Your task to perform on an android device: turn off notifications settings in the gmail app Image 0: 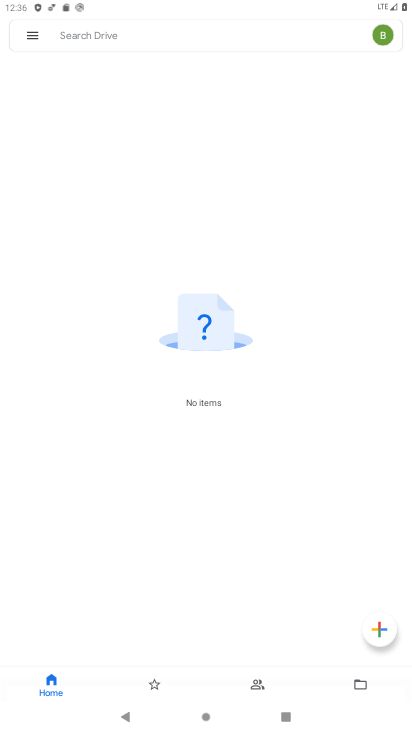
Step 0: press home button
Your task to perform on an android device: turn off notifications settings in the gmail app Image 1: 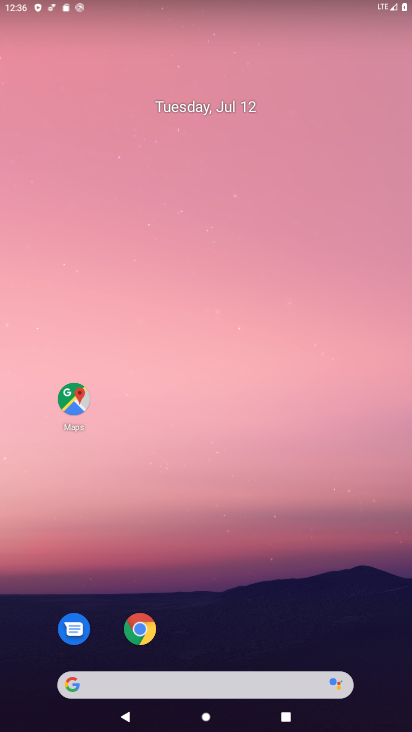
Step 1: drag from (262, 680) to (278, 59)
Your task to perform on an android device: turn off notifications settings in the gmail app Image 2: 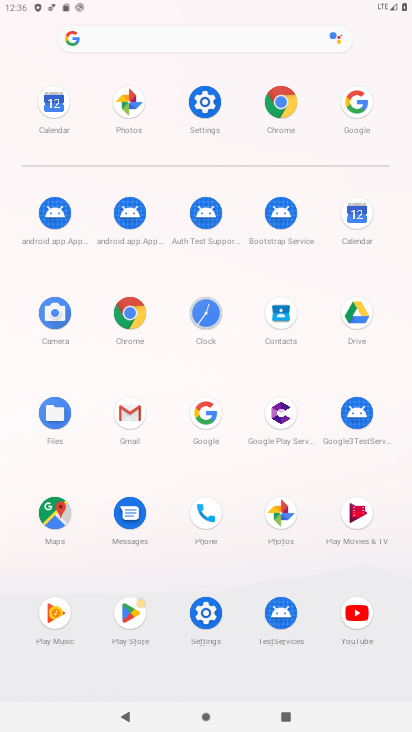
Step 2: click (126, 425)
Your task to perform on an android device: turn off notifications settings in the gmail app Image 3: 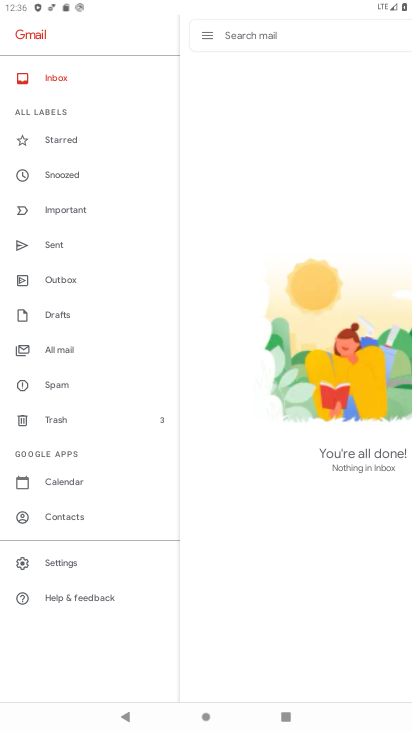
Step 3: click (72, 560)
Your task to perform on an android device: turn off notifications settings in the gmail app Image 4: 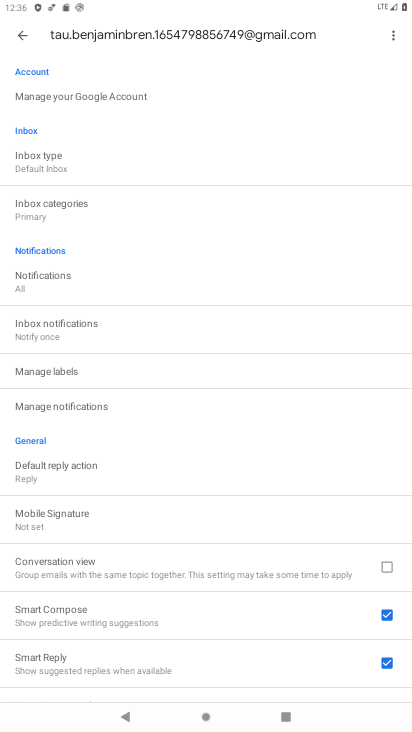
Step 4: click (78, 408)
Your task to perform on an android device: turn off notifications settings in the gmail app Image 5: 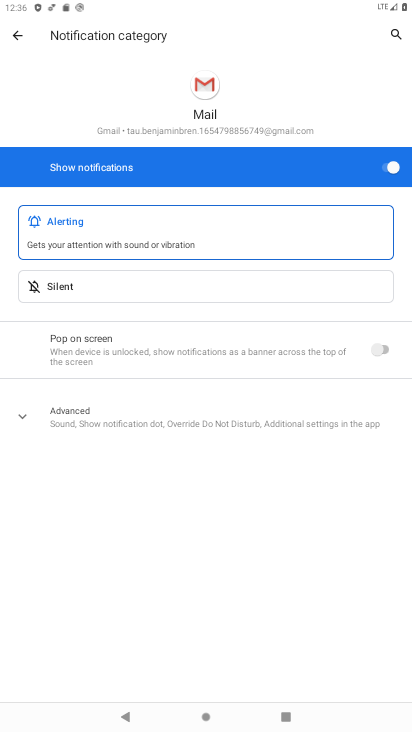
Step 5: click (395, 168)
Your task to perform on an android device: turn off notifications settings in the gmail app Image 6: 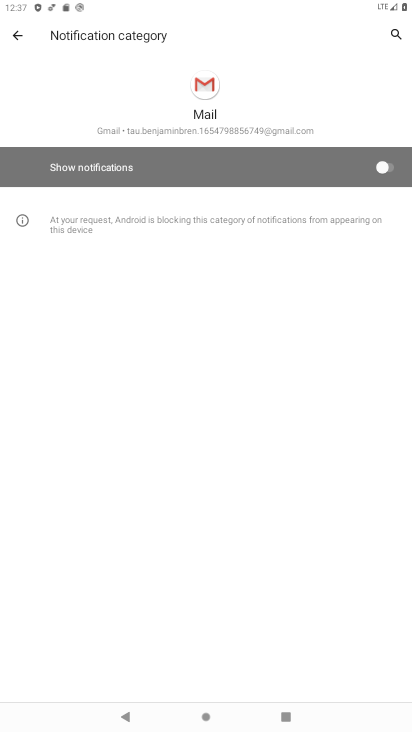
Step 6: task complete